Your task to perform on an android device: Open the Play Movies app and select the watchlist tab. Image 0: 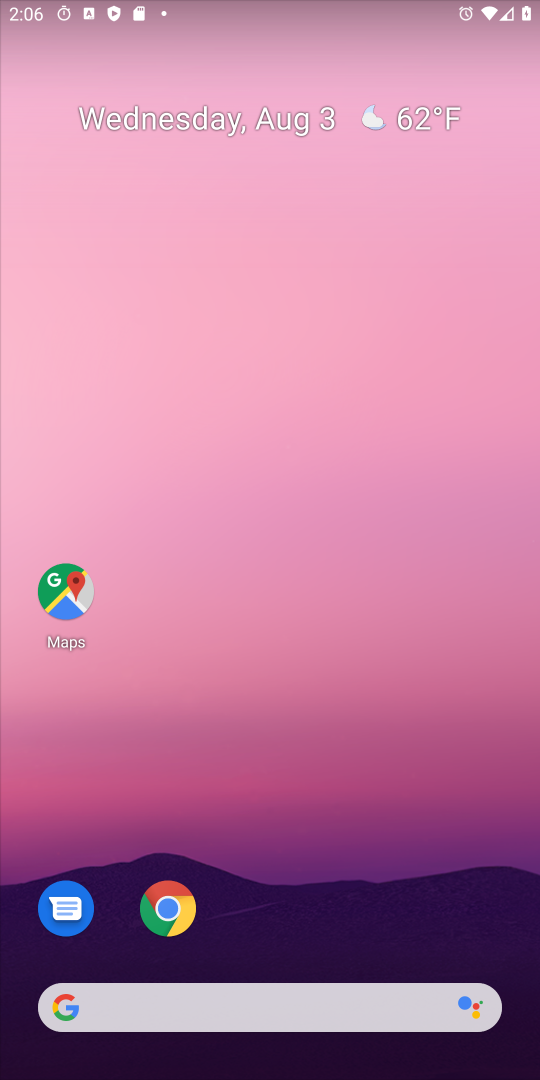
Step 0: drag from (286, 898) to (308, 290)
Your task to perform on an android device: Open the Play Movies app and select the watchlist tab. Image 1: 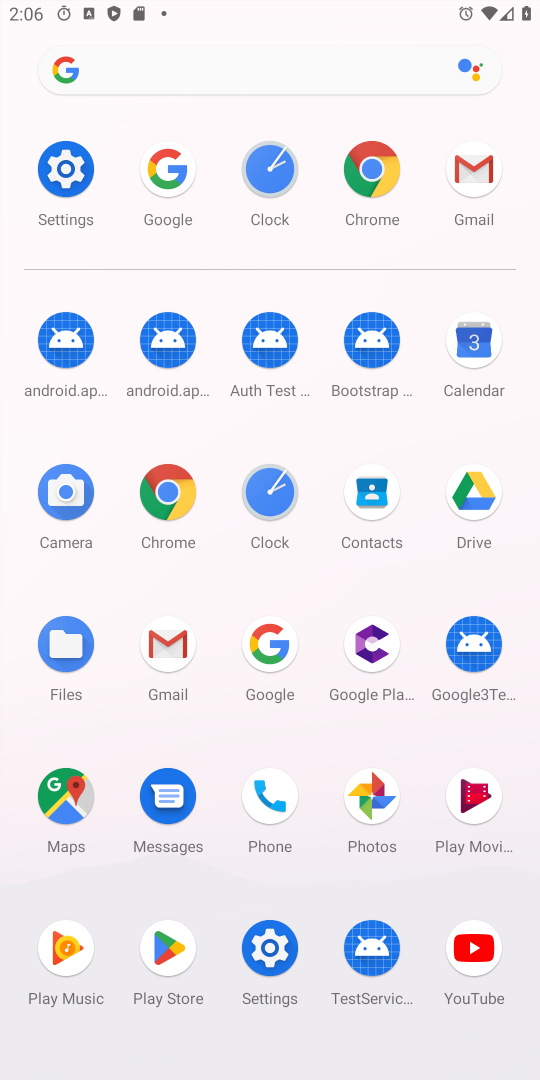
Step 1: click (472, 801)
Your task to perform on an android device: Open the Play Movies app and select the watchlist tab. Image 2: 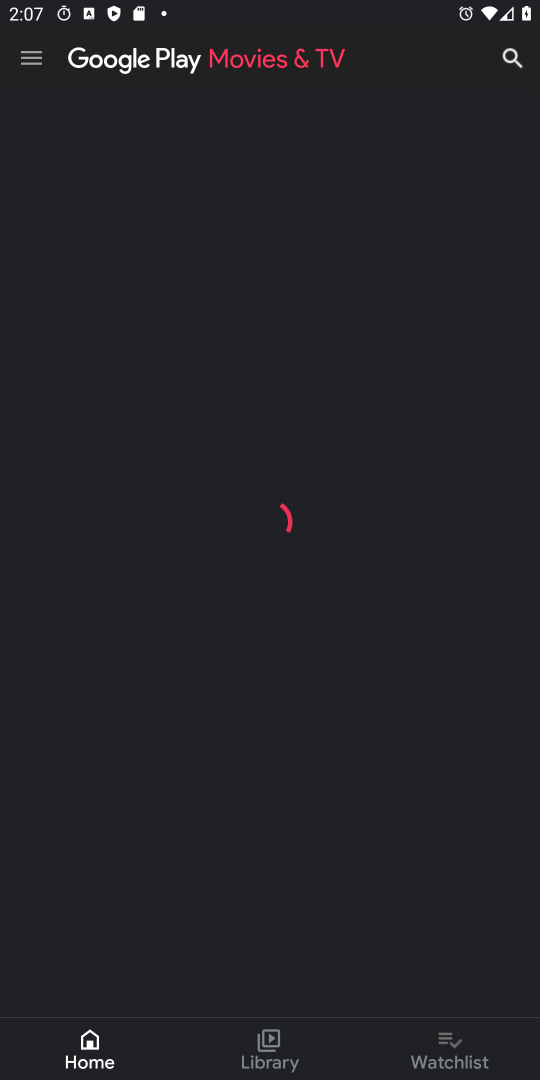
Step 2: click (451, 1046)
Your task to perform on an android device: Open the Play Movies app and select the watchlist tab. Image 3: 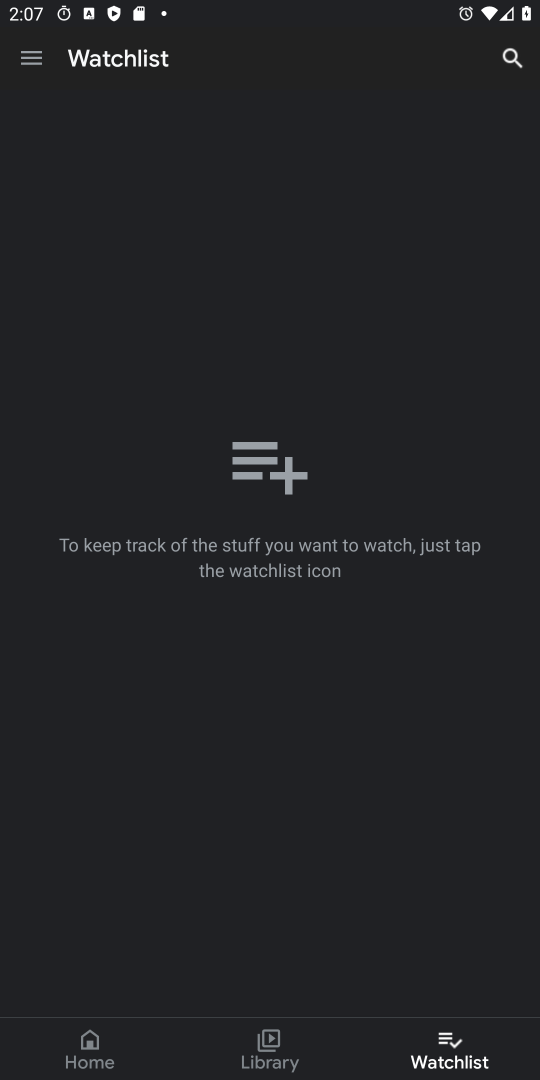
Step 3: task complete